Your task to perform on an android device: turn on airplane mode Image 0: 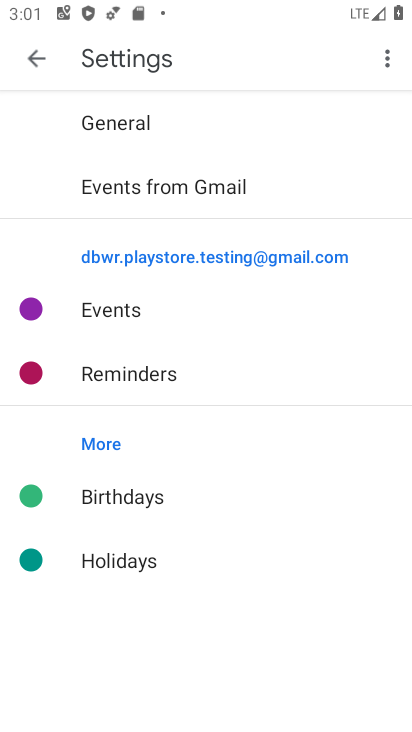
Step 0: press back button
Your task to perform on an android device: turn on airplane mode Image 1: 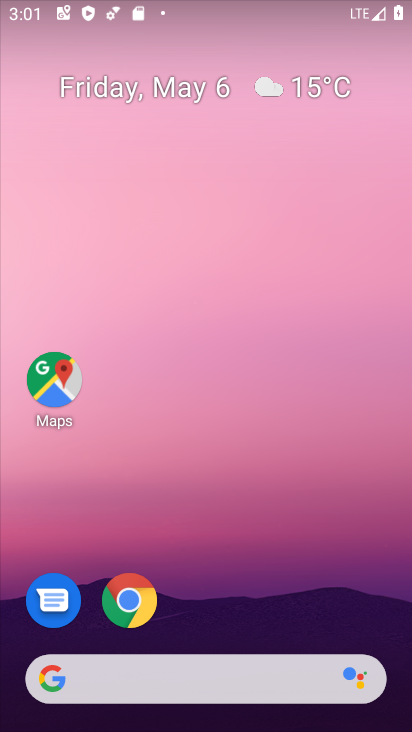
Step 1: drag from (247, 549) to (229, 0)
Your task to perform on an android device: turn on airplane mode Image 2: 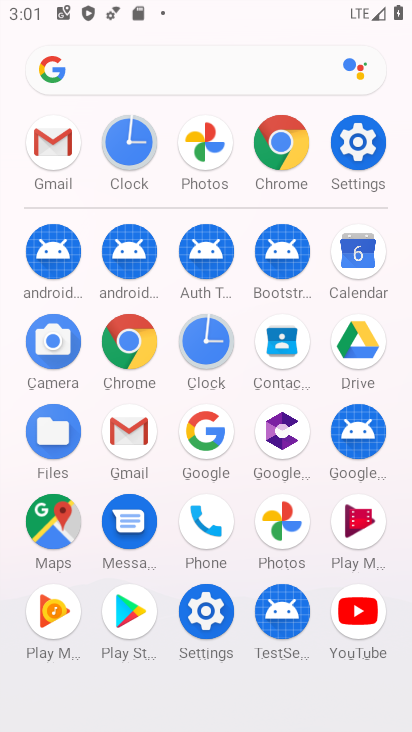
Step 2: click (356, 142)
Your task to perform on an android device: turn on airplane mode Image 3: 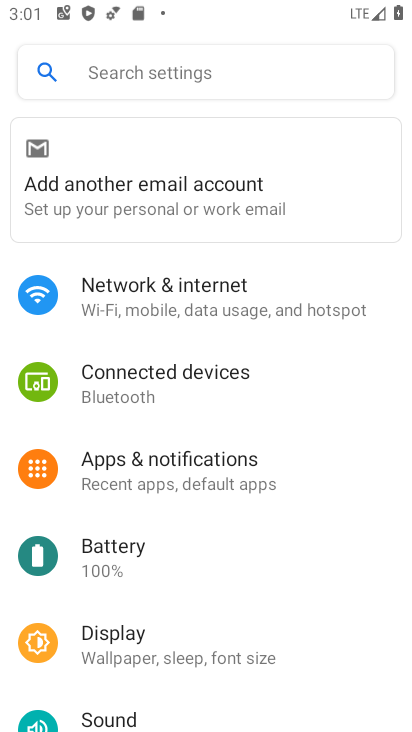
Step 3: drag from (312, 521) to (339, 368)
Your task to perform on an android device: turn on airplane mode Image 4: 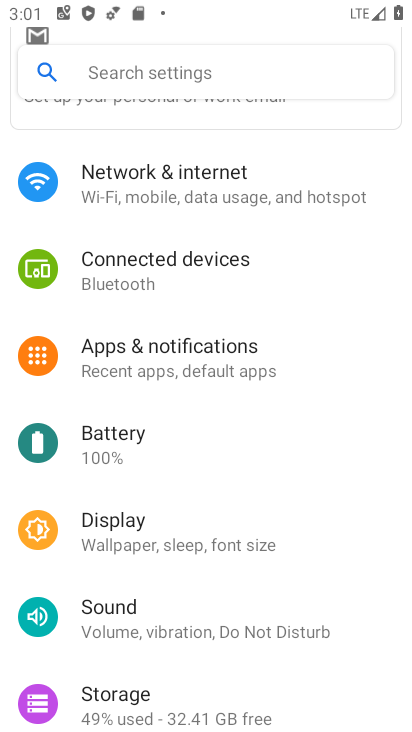
Step 4: click (187, 184)
Your task to perform on an android device: turn on airplane mode Image 5: 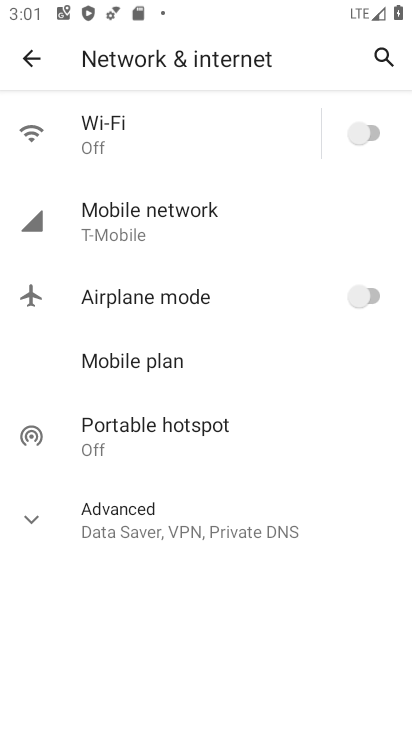
Step 5: click (366, 287)
Your task to perform on an android device: turn on airplane mode Image 6: 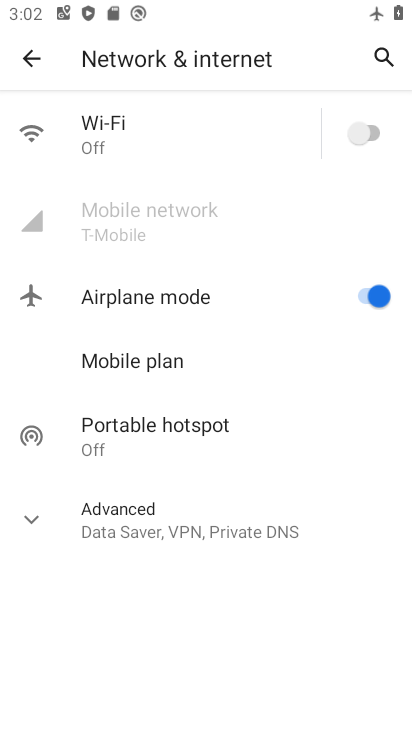
Step 6: task complete